Your task to perform on an android device: read, delete, or share a saved page in the chrome app Image 0: 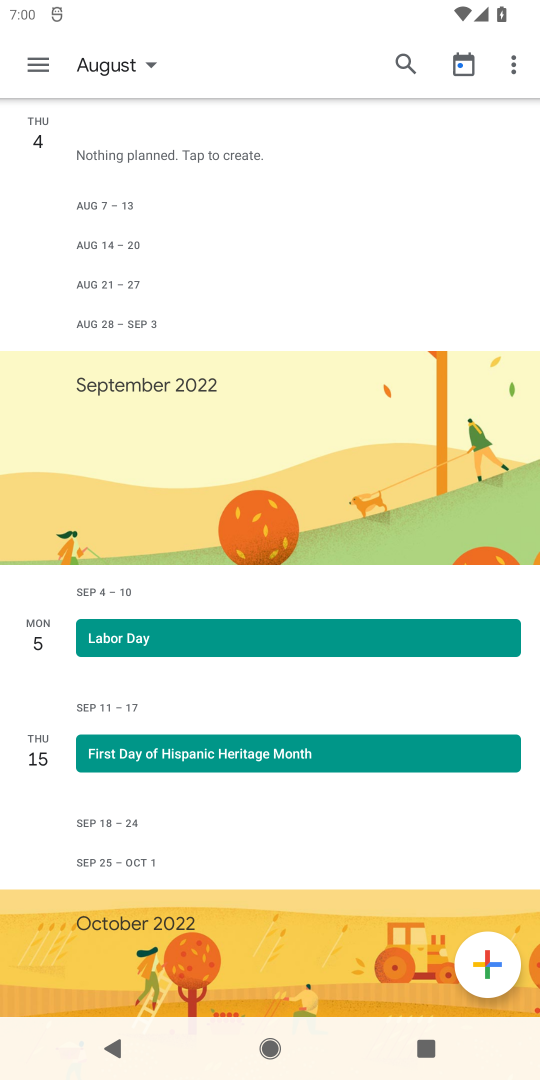
Step 0: press home button
Your task to perform on an android device: read, delete, or share a saved page in the chrome app Image 1: 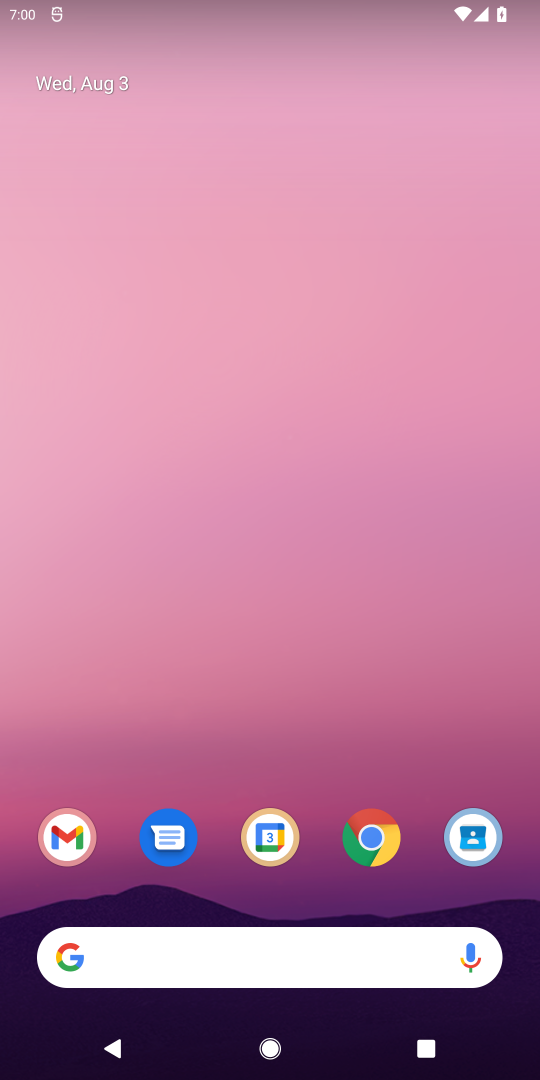
Step 1: click (380, 830)
Your task to perform on an android device: read, delete, or share a saved page in the chrome app Image 2: 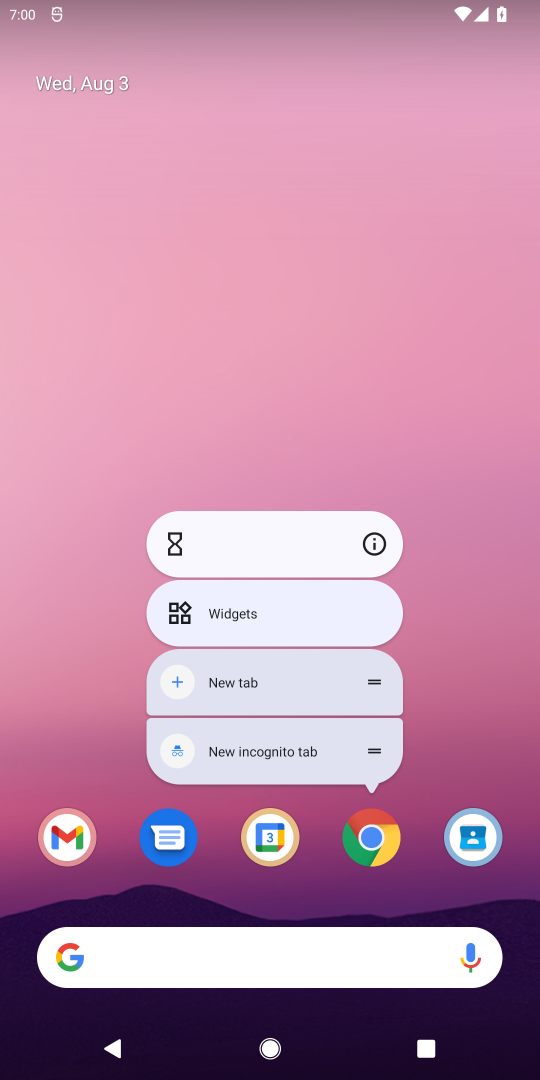
Step 2: click (380, 830)
Your task to perform on an android device: read, delete, or share a saved page in the chrome app Image 3: 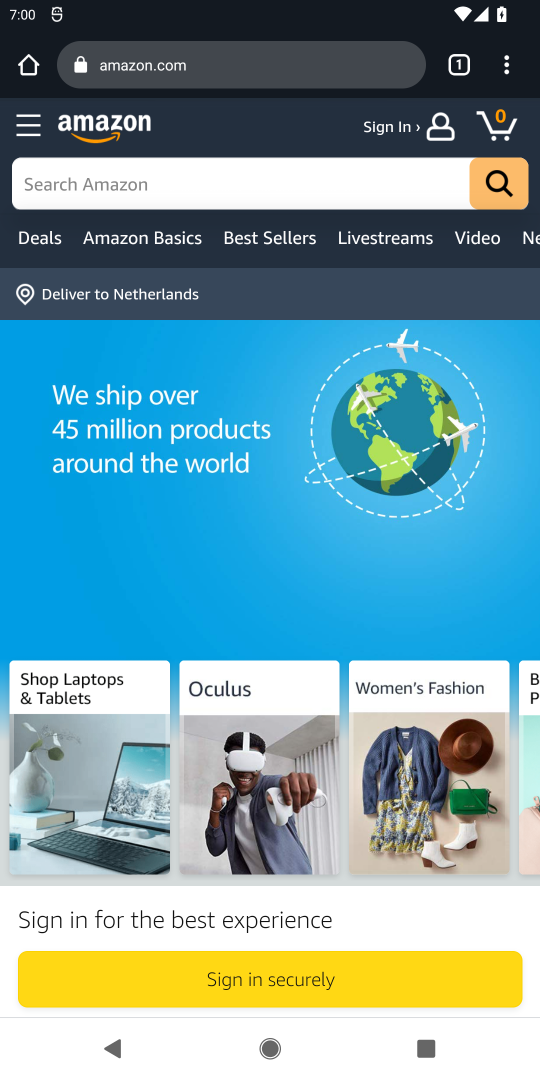
Step 3: task complete